Your task to perform on an android device: Is it going to rain this weekend? Image 0: 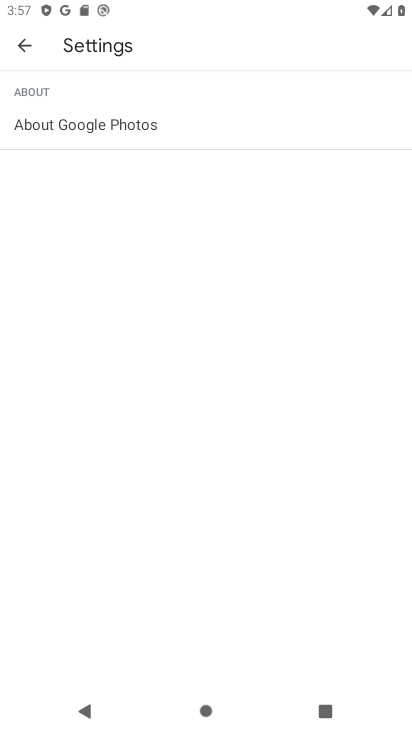
Step 0: press home button
Your task to perform on an android device: Is it going to rain this weekend? Image 1: 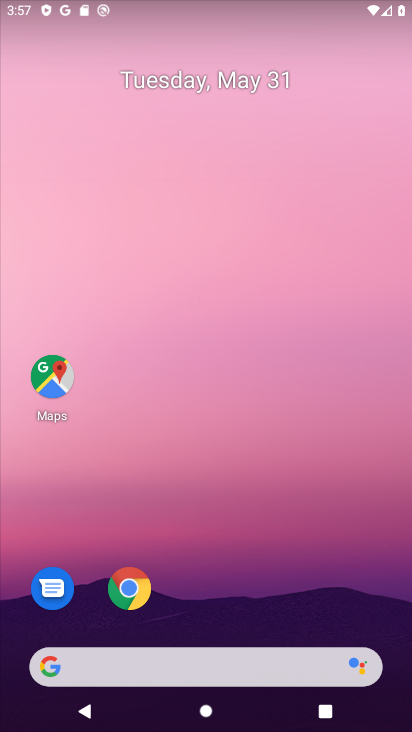
Step 1: click (186, 670)
Your task to perform on an android device: Is it going to rain this weekend? Image 2: 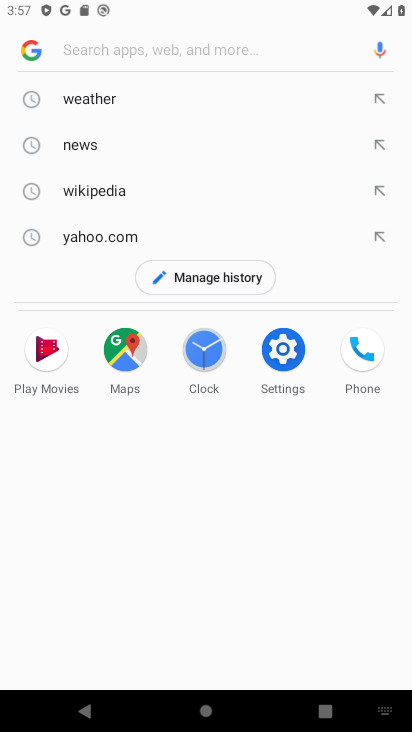
Step 2: click (130, 104)
Your task to perform on an android device: Is it going to rain this weekend? Image 3: 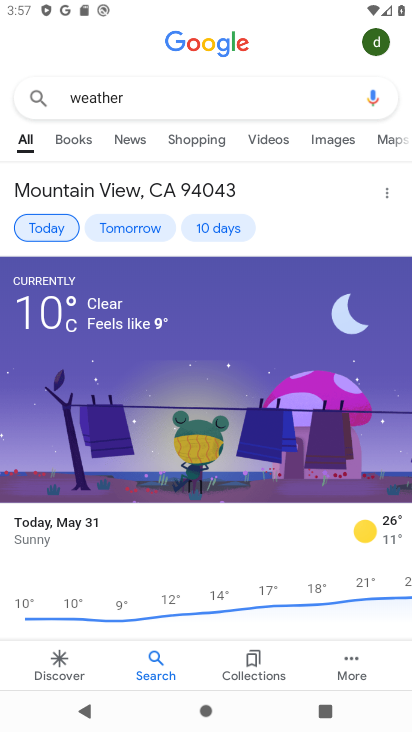
Step 3: click (214, 224)
Your task to perform on an android device: Is it going to rain this weekend? Image 4: 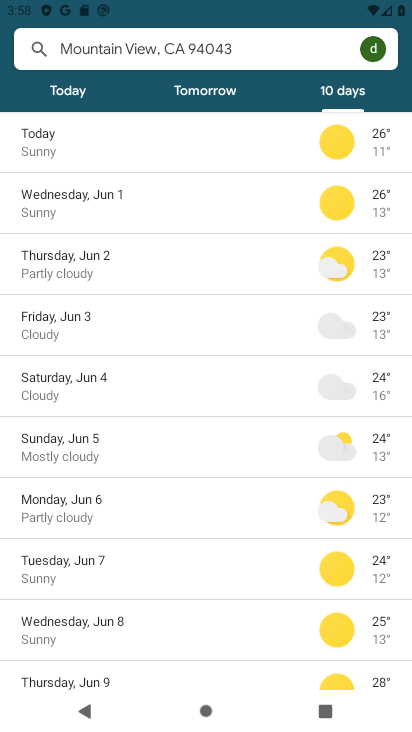
Step 4: task complete